Your task to perform on an android device: Search for a dining table on crateandbarrel.com Image 0: 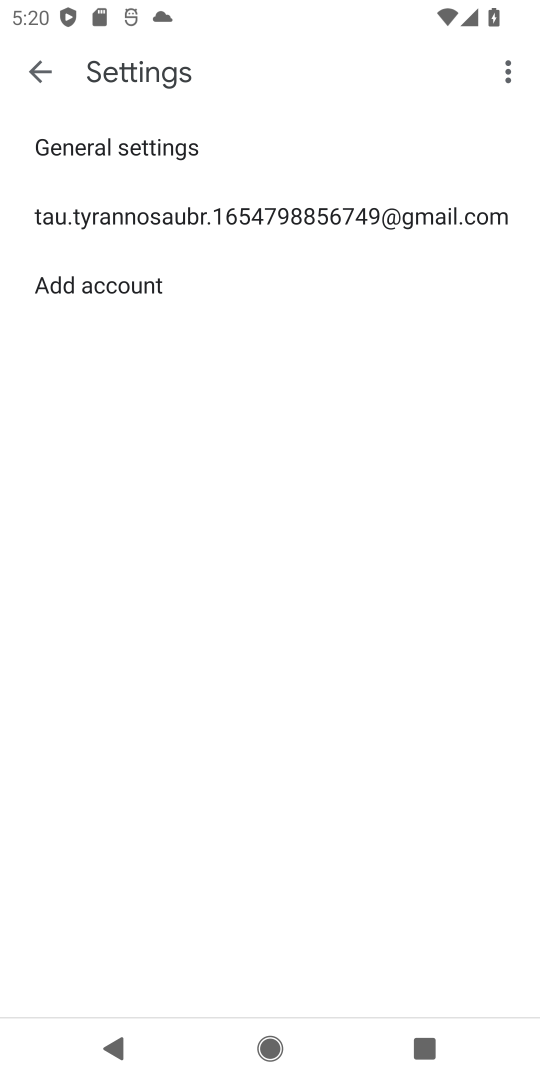
Step 0: press home button
Your task to perform on an android device: Search for a dining table on crateandbarrel.com Image 1: 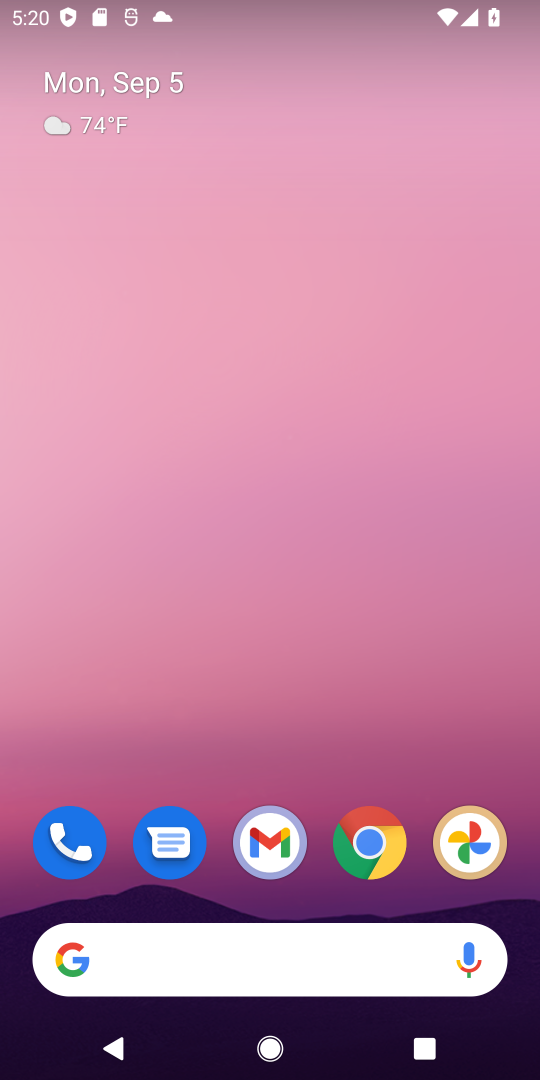
Step 1: click (371, 845)
Your task to perform on an android device: Search for a dining table on crateandbarrel.com Image 2: 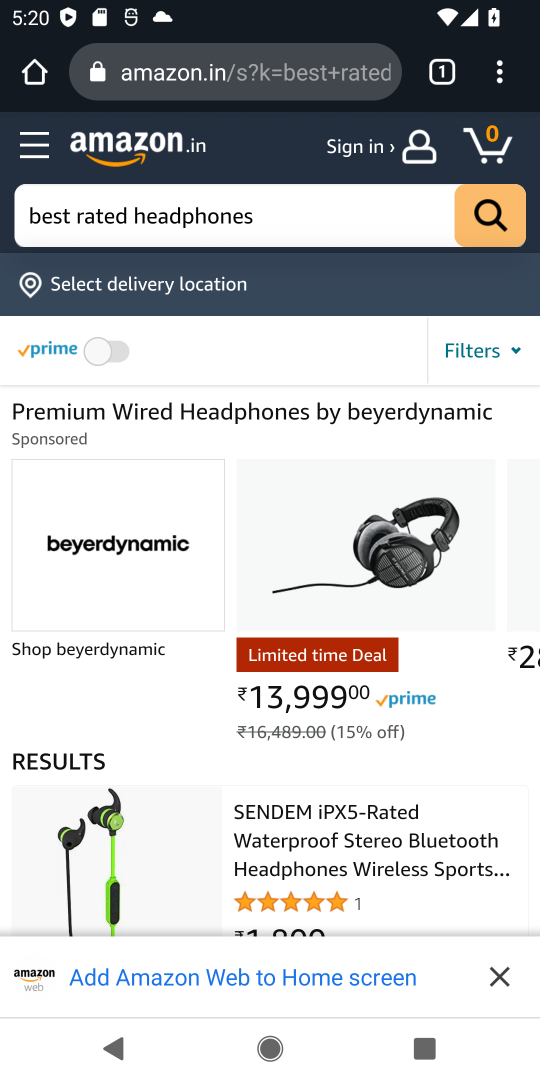
Step 2: click (280, 70)
Your task to perform on an android device: Search for a dining table on crateandbarrel.com Image 3: 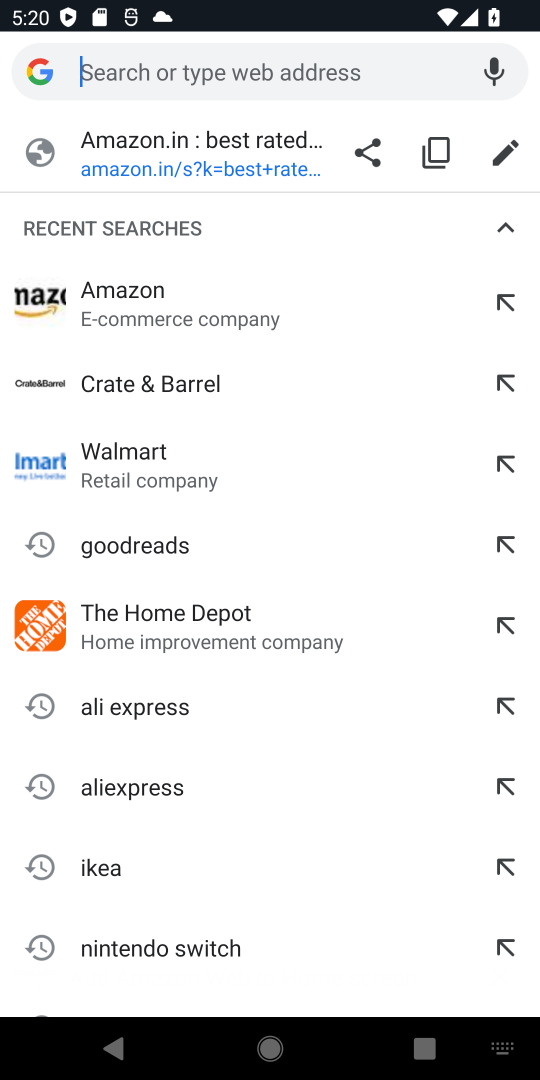
Step 3: type "crateandbarrel.com"
Your task to perform on an android device: Search for a dining table on crateandbarrel.com Image 4: 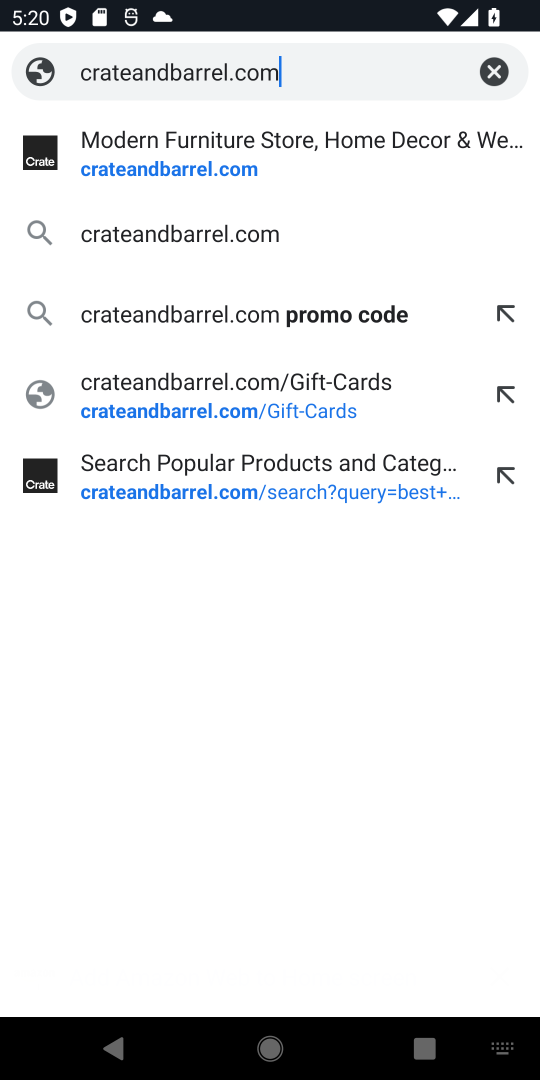
Step 4: click (227, 231)
Your task to perform on an android device: Search for a dining table on crateandbarrel.com Image 5: 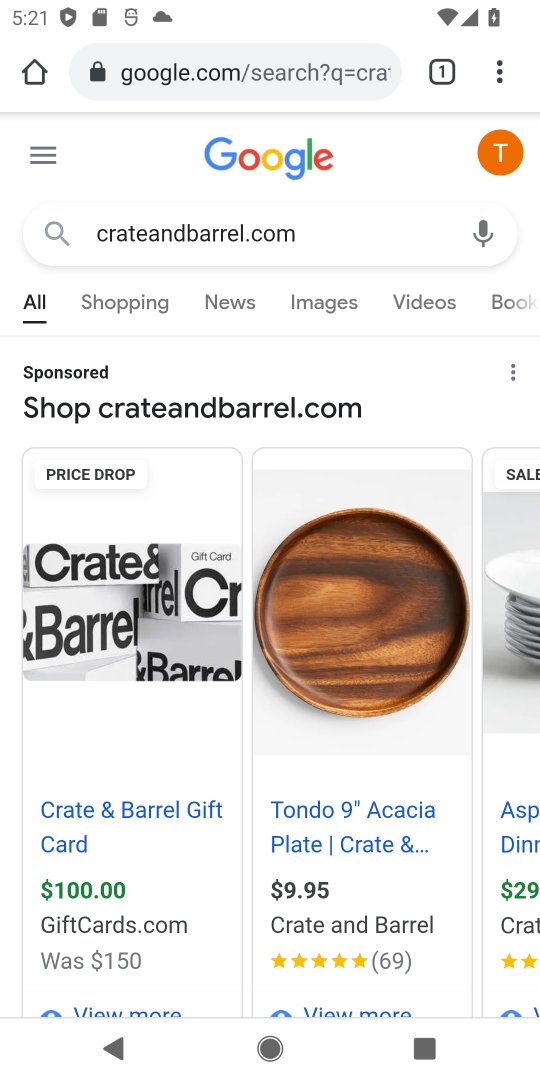
Step 5: drag from (392, 420) to (397, 141)
Your task to perform on an android device: Search for a dining table on crateandbarrel.com Image 6: 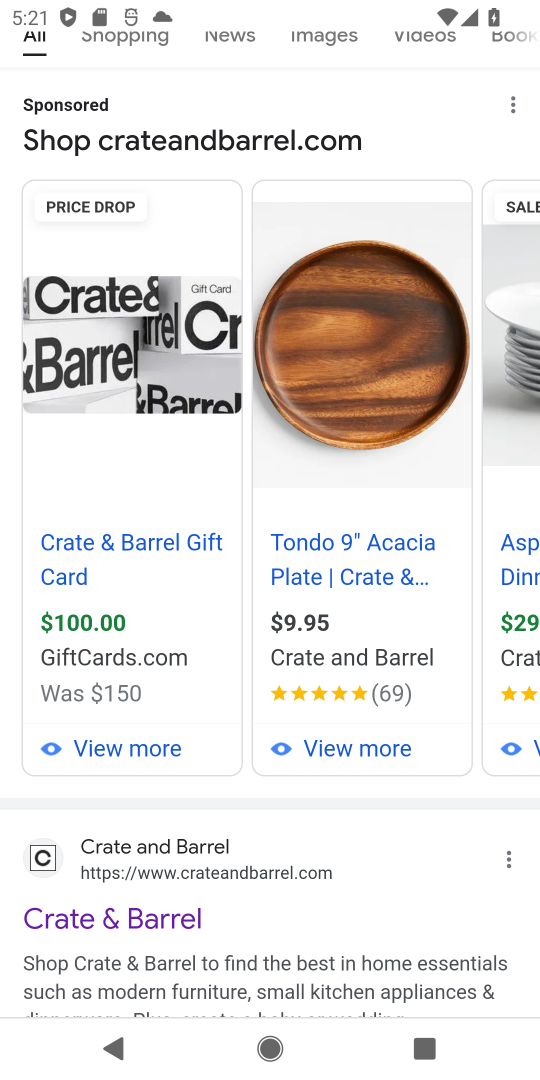
Step 6: drag from (304, 910) to (434, 594)
Your task to perform on an android device: Search for a dining table on crateandbarrel.com Image 7: 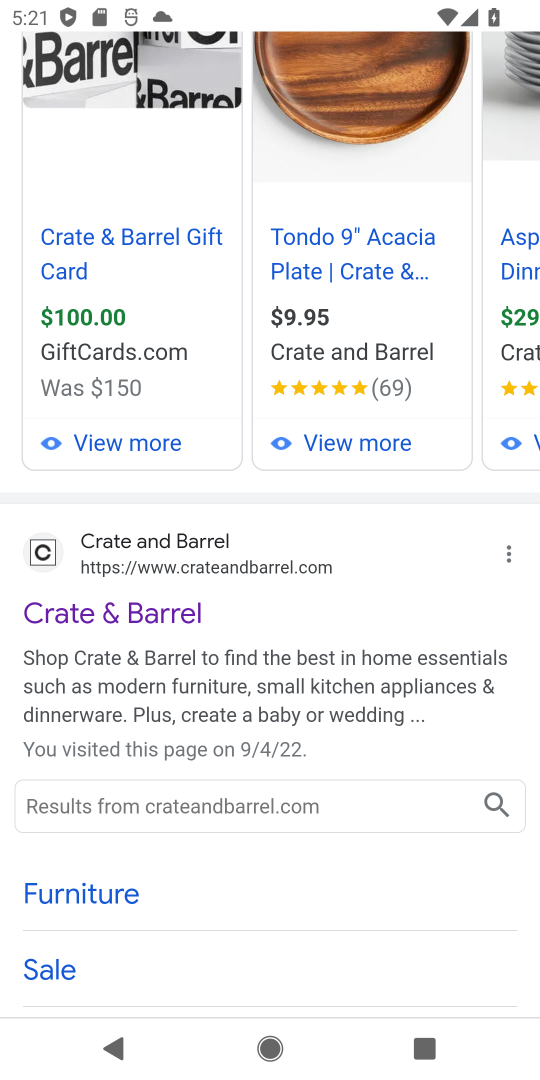
Step 7: drag from (260, 882) to (431, 607)
Your task to perform on an android device: Search for a dining table on crateandbarrel.com Image 8: 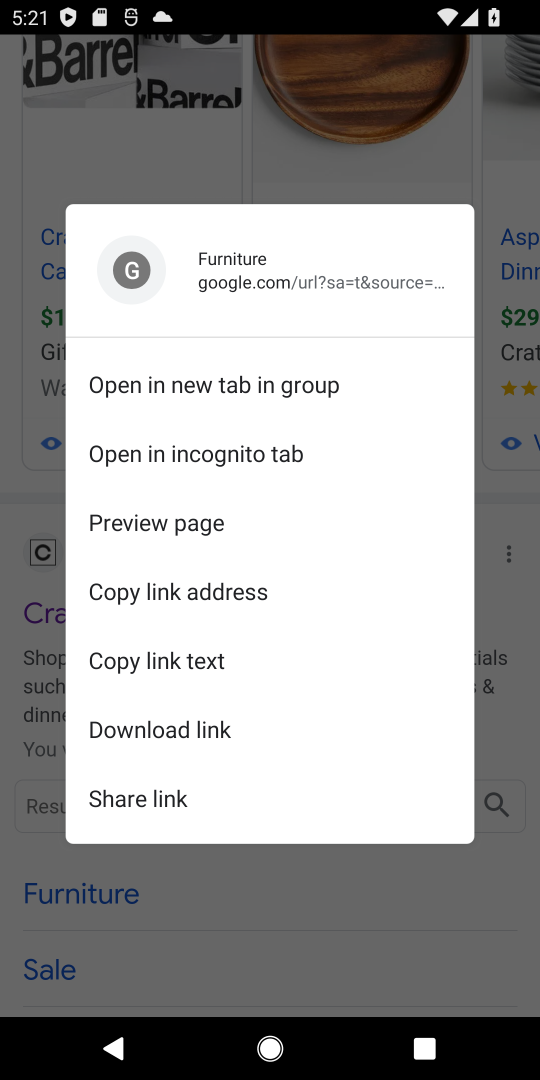
Step 8: click (530, 422)
Your task to perform on an android device: Search for a dining table on crateandbarrel.com Image 9: 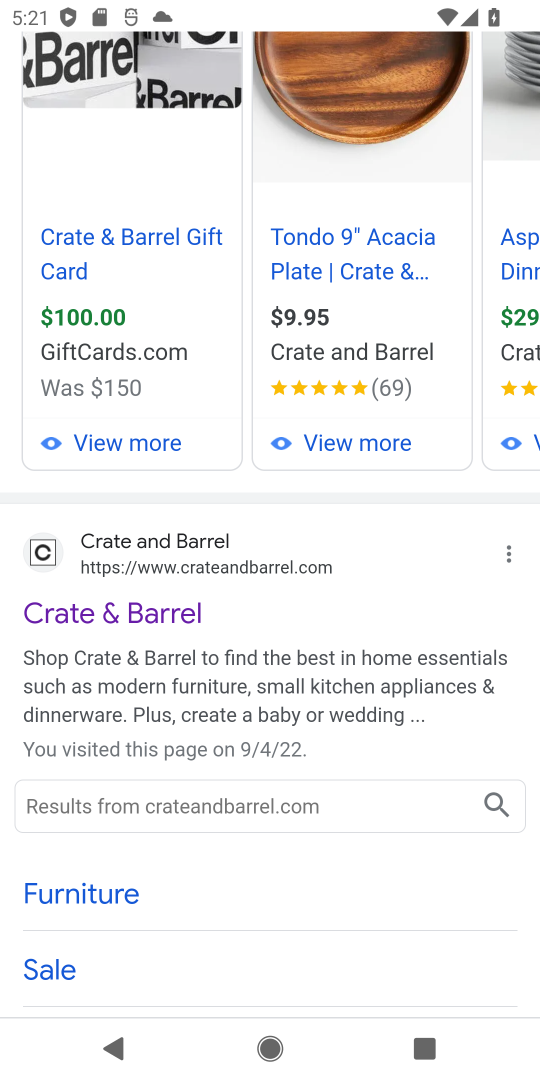
Step 9: click (163, 614)
Your task to perform on an android device: Search for a dining table on crateandbarrel.com Image 10: 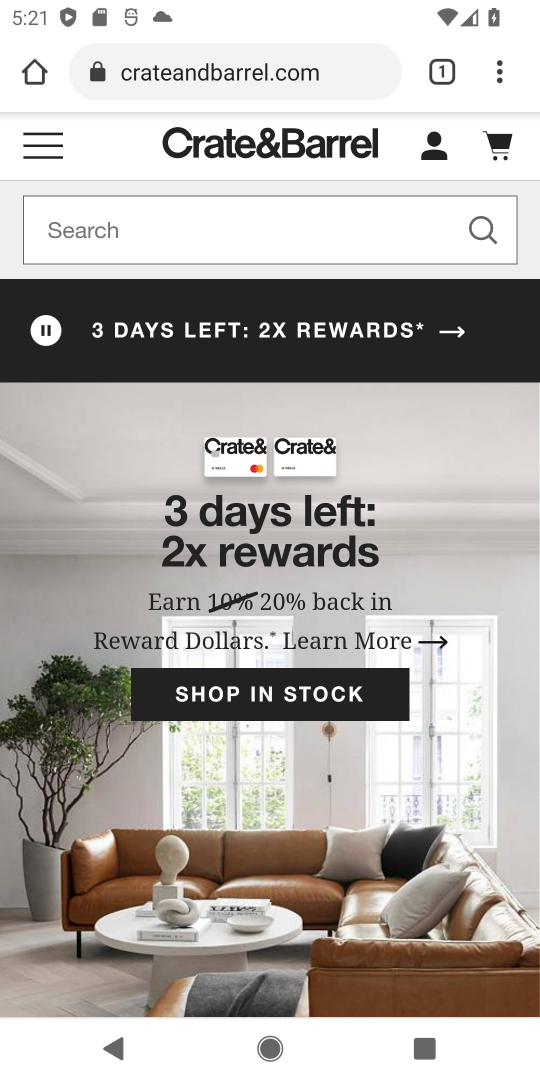
Step 10: click (181, 216)
Your task to perform on an android device: Search for a dining table on crateandbarrel.com Image 11: 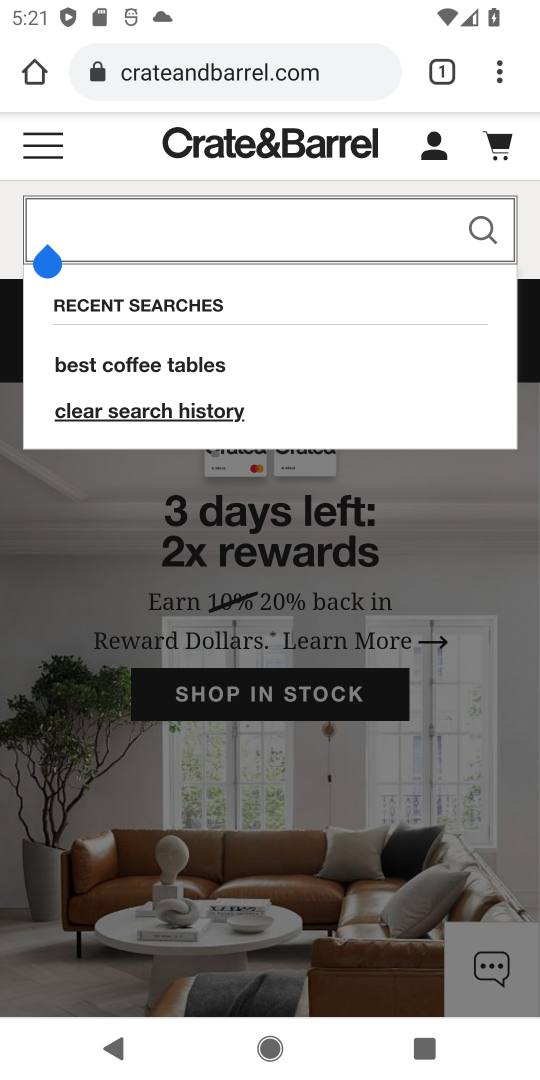
Step 11: click (193, 234)
Your task to perform on an android device: Search for a dining table on crateandbarrel.com Image 12: 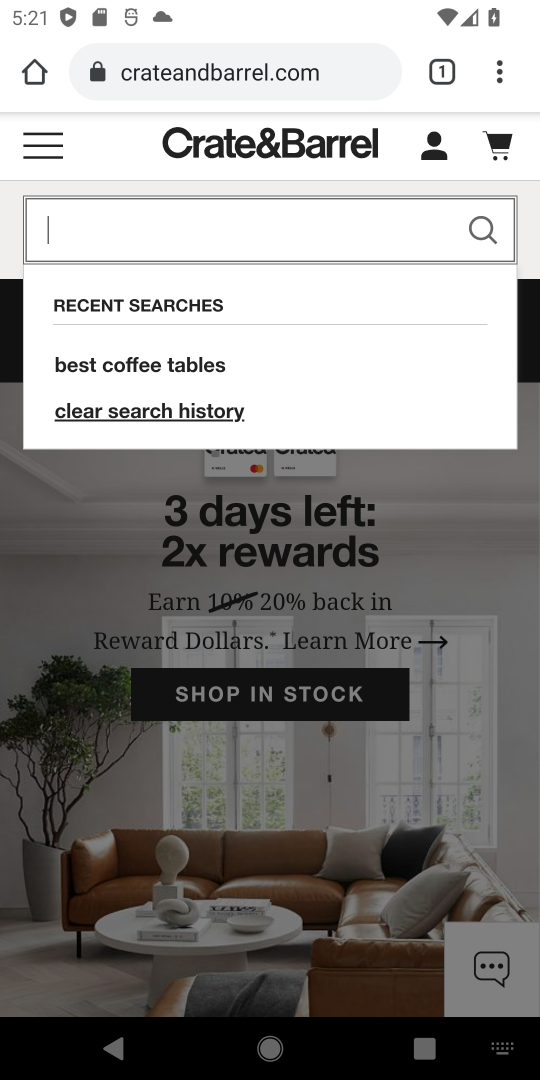
Step 12: type "dining table on"
Your task to perform on an android device: Search for a dining table on crateandbarrel.com Image 13: 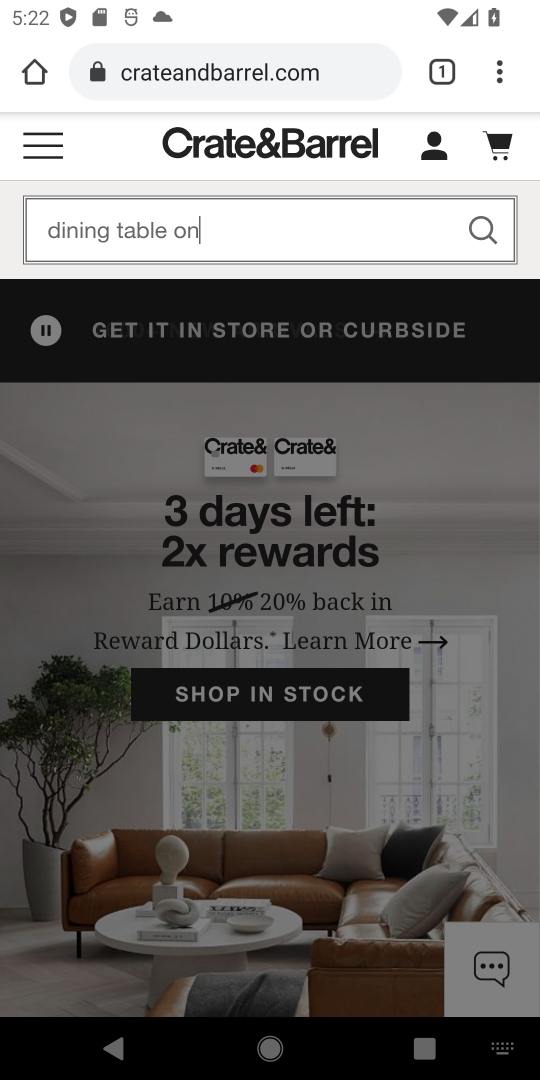
Step 13: click (484, 240)
Your task to perform on an android device: Search for a dining table on crateandbarrel.com Image 14: 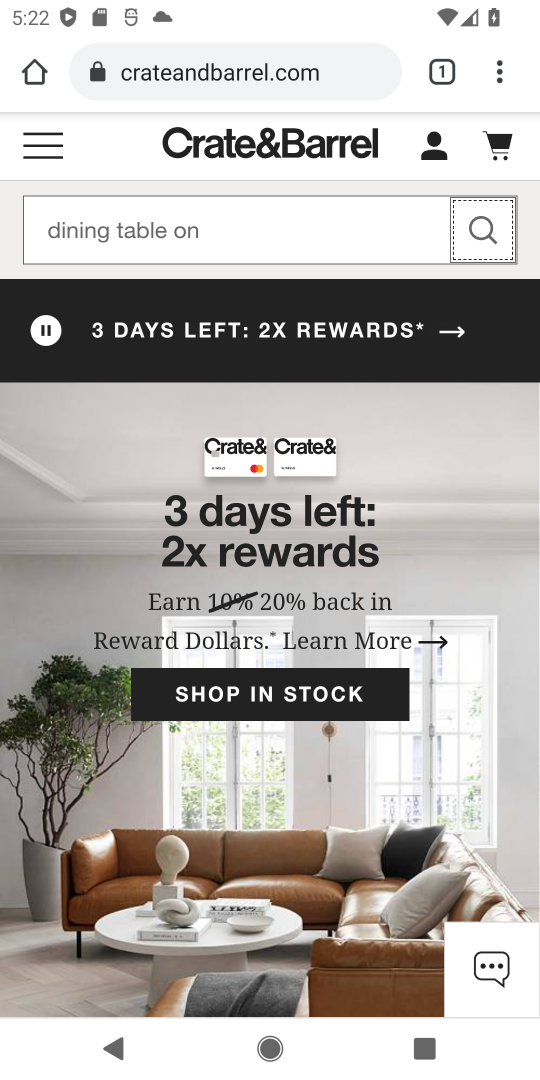
Step 14: click (471, 229)
Your task to perform on an android device: Search for a dining table on crateandbarrel.com Image 15: 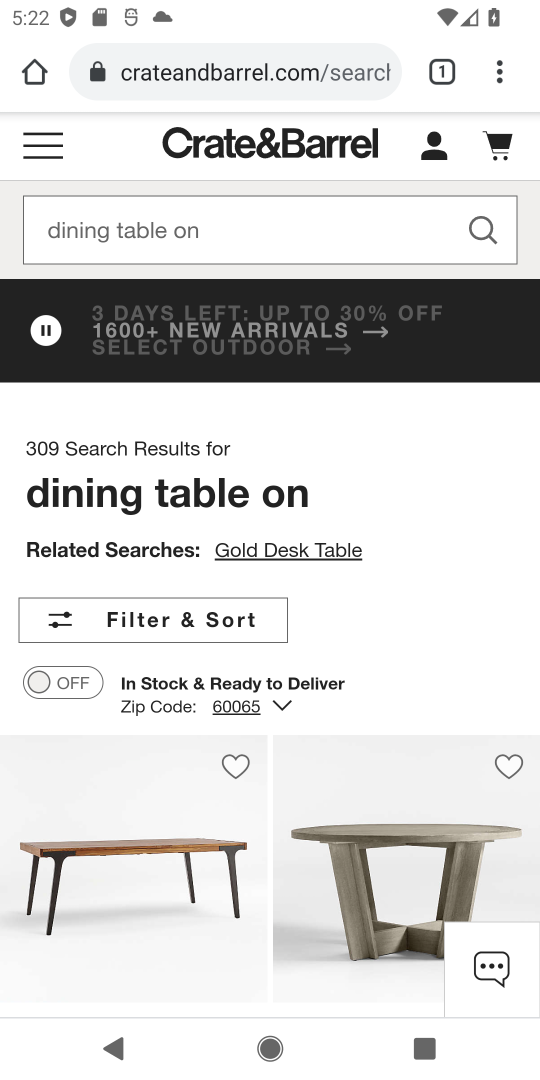
Step 15: task complete